Your task to perform on an android device: Open the stopwatch Image 0: 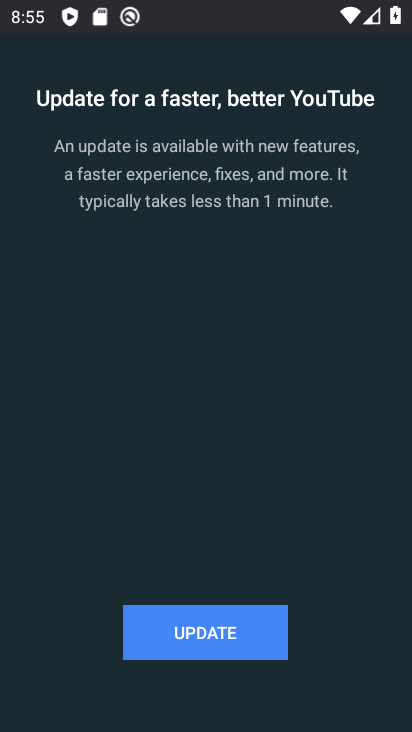
Step 0: drag from (89, 632) to (54, 498)
Your task to perform on an android device: Open the stopwatch Image 1: 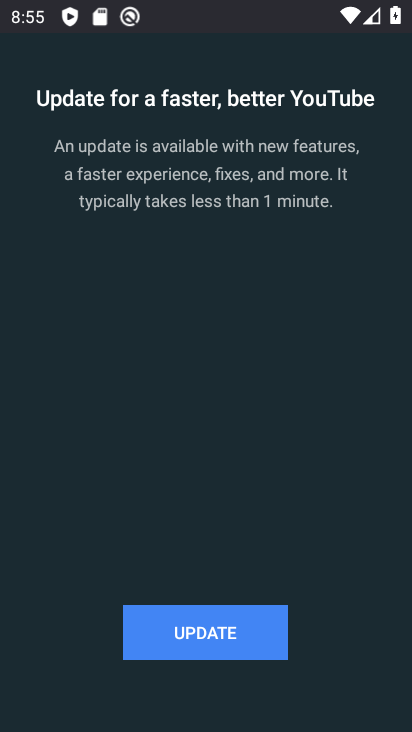
Step 1: press back button
Your task to perform on an android device: Open the stopwatch Image 2: 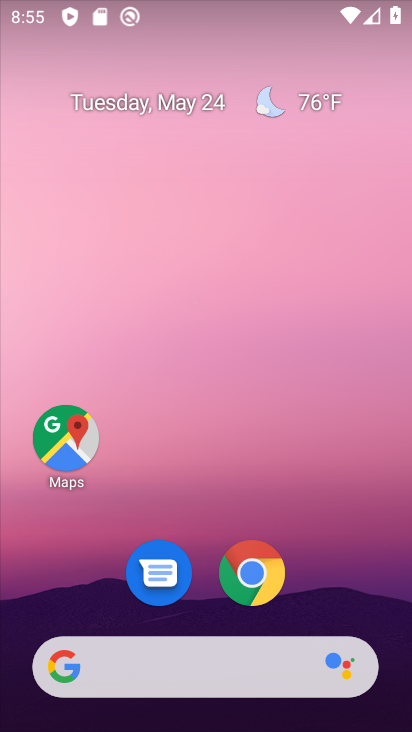
Step 2: drag from (70, 627) to (259, 135)
Your task to perform on an android device: Open the stopwatch Image 3: 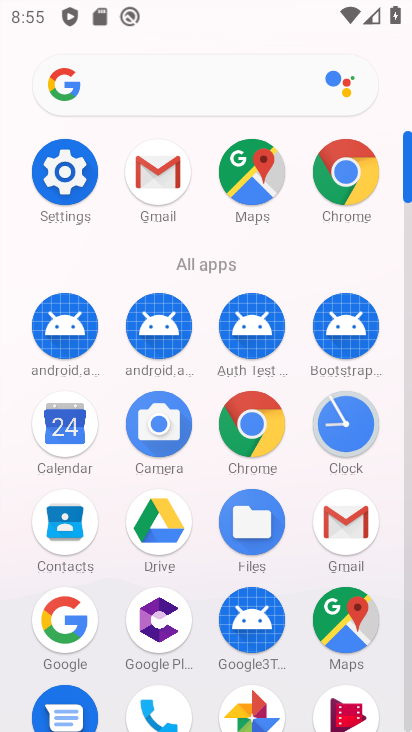
Step 3: click (345, 439)
Your task to perform on an android device: Open the stopwatch Image 4: 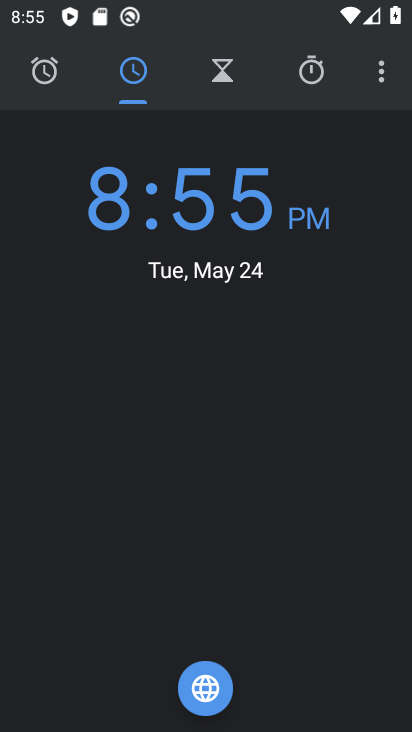
Step 4: click (311, 89)
Your task to perform on an android device: Open the stopwatch Image 5: 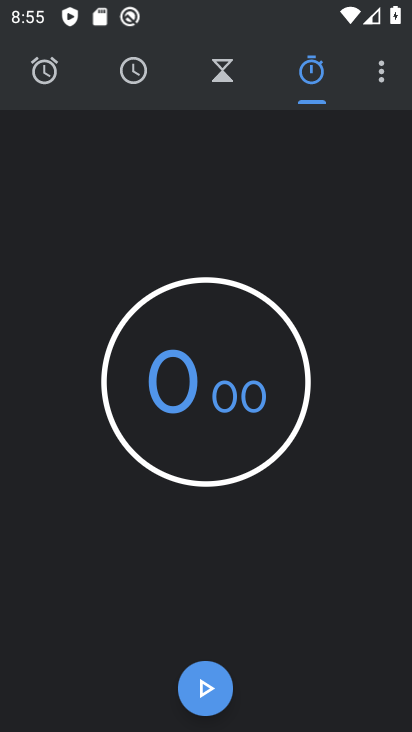
Step 5: task complete